Your task to perform on an android device: Search for the best rated 2021 Samsung Galaxy S21 Ultra on AliExpress Image 0: 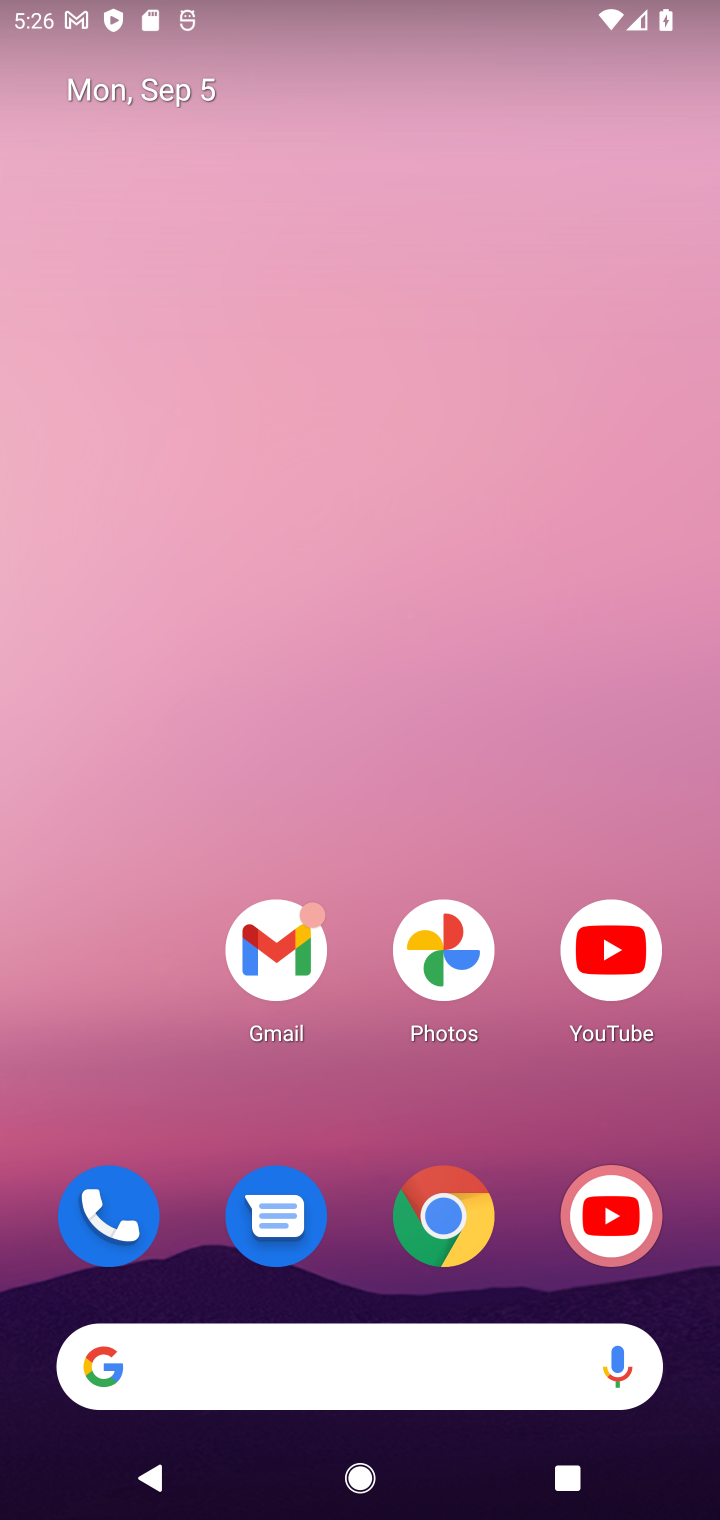
Step 0: click (432, 1245)
Your task to perform on an android device: Search for the best rated 2021 Samsung Galaxy S21 Ultra on AliExpress Image 1: 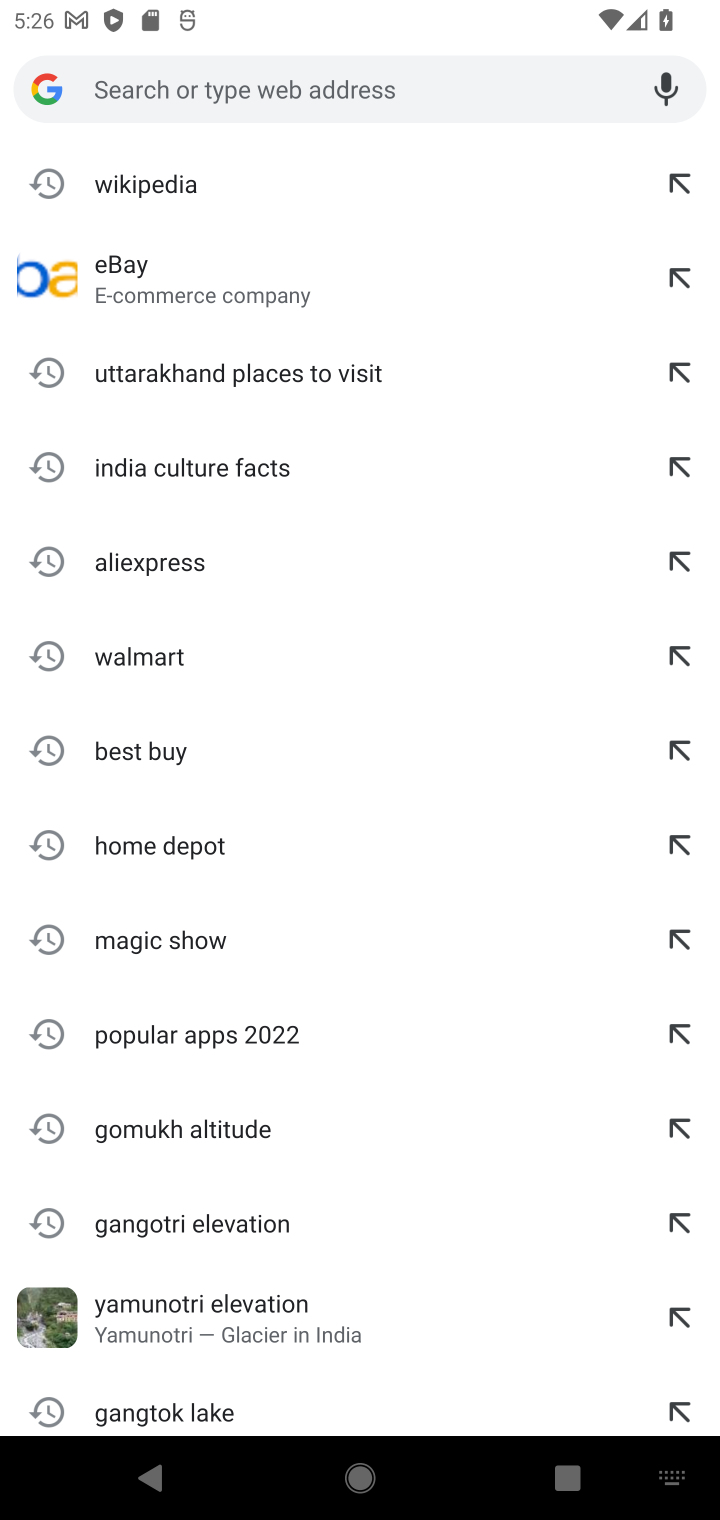
Step 1: click (164, 573)
Your task to perform on an android device: Search for the best rated 2021 Samsung Galaxy S21 Ultra on AliExpress Image 2: 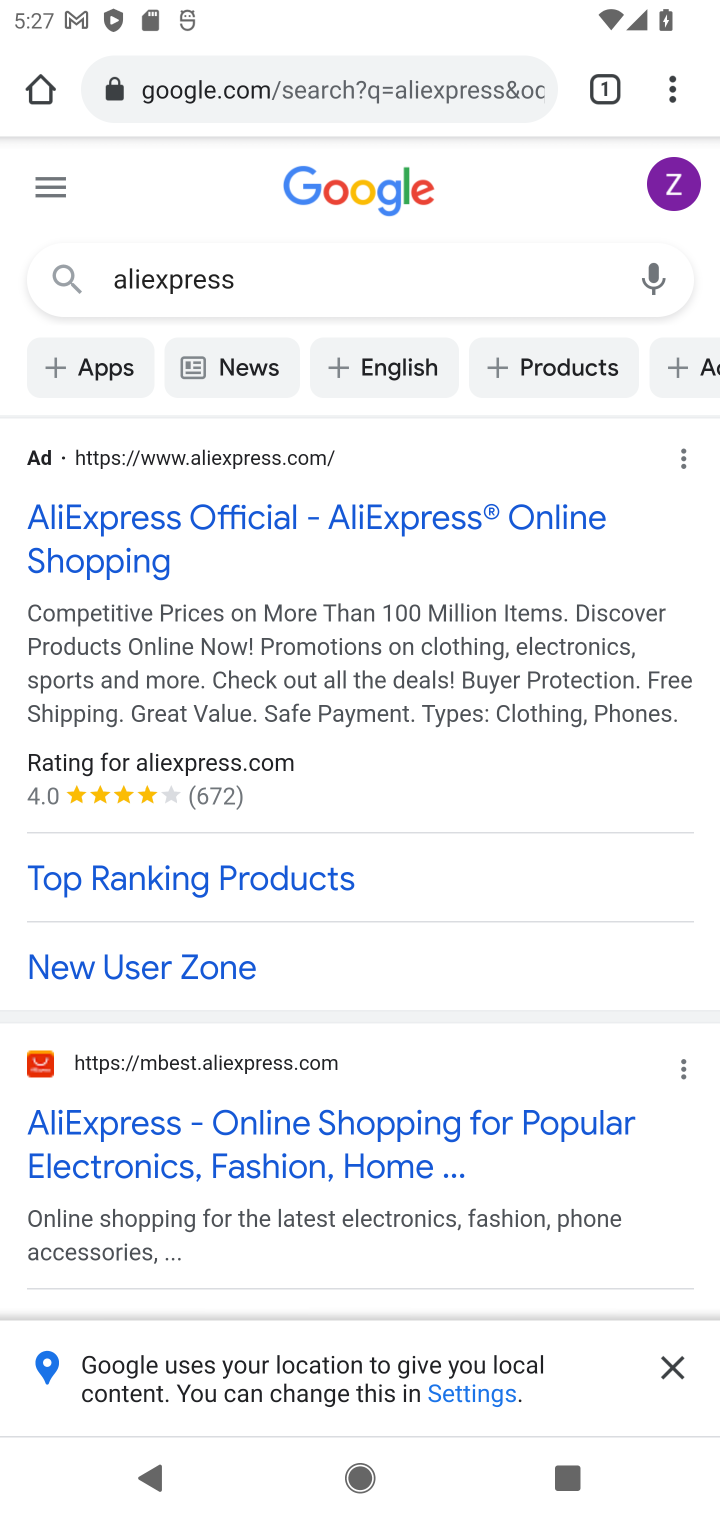
Step 2: click (218, 1135)
Your task to perform on an android device: Search for the best rated 2021 Samsung Galaxy S21 Ultra on AliExpress Image 3: 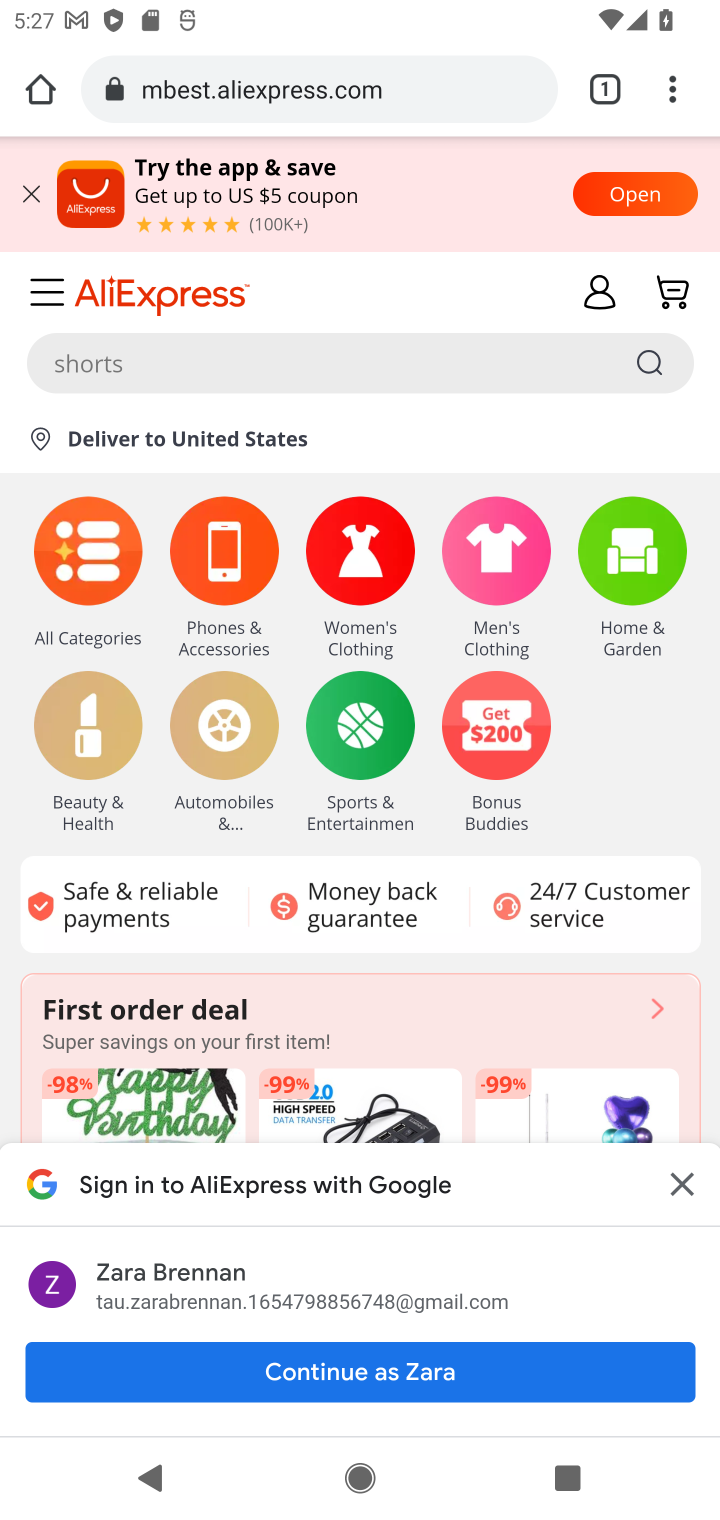
Step 3: click (683, 1194)
Your task to perform on an android device: Search for the best rated 2021 Samsung Galaxy S21 Ultra on AliExpress Image 4: 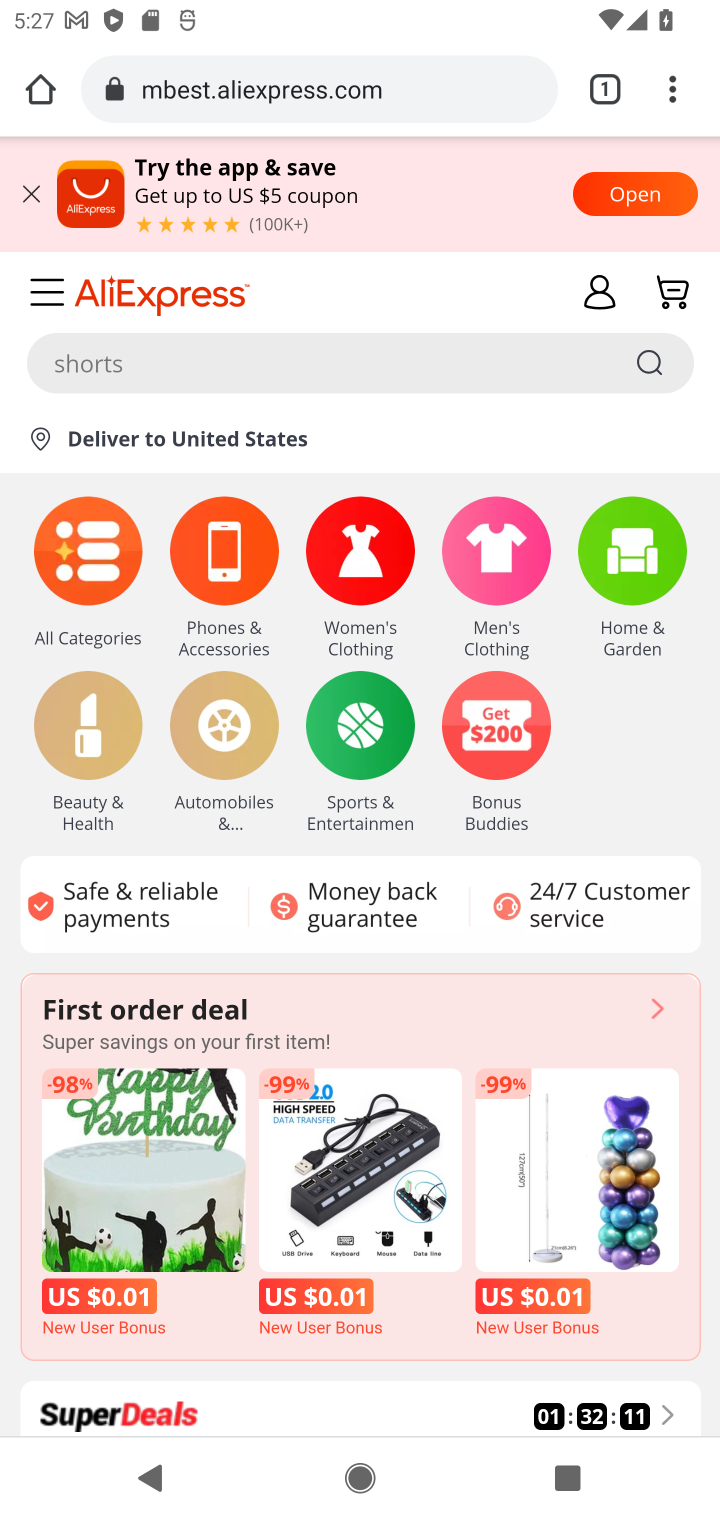
Step 4: click (282, 362)
Your task to perform on an android device: Search for the best rated 2021 Samsung Galaxy S21 Ultra on AliExpress Image 5: 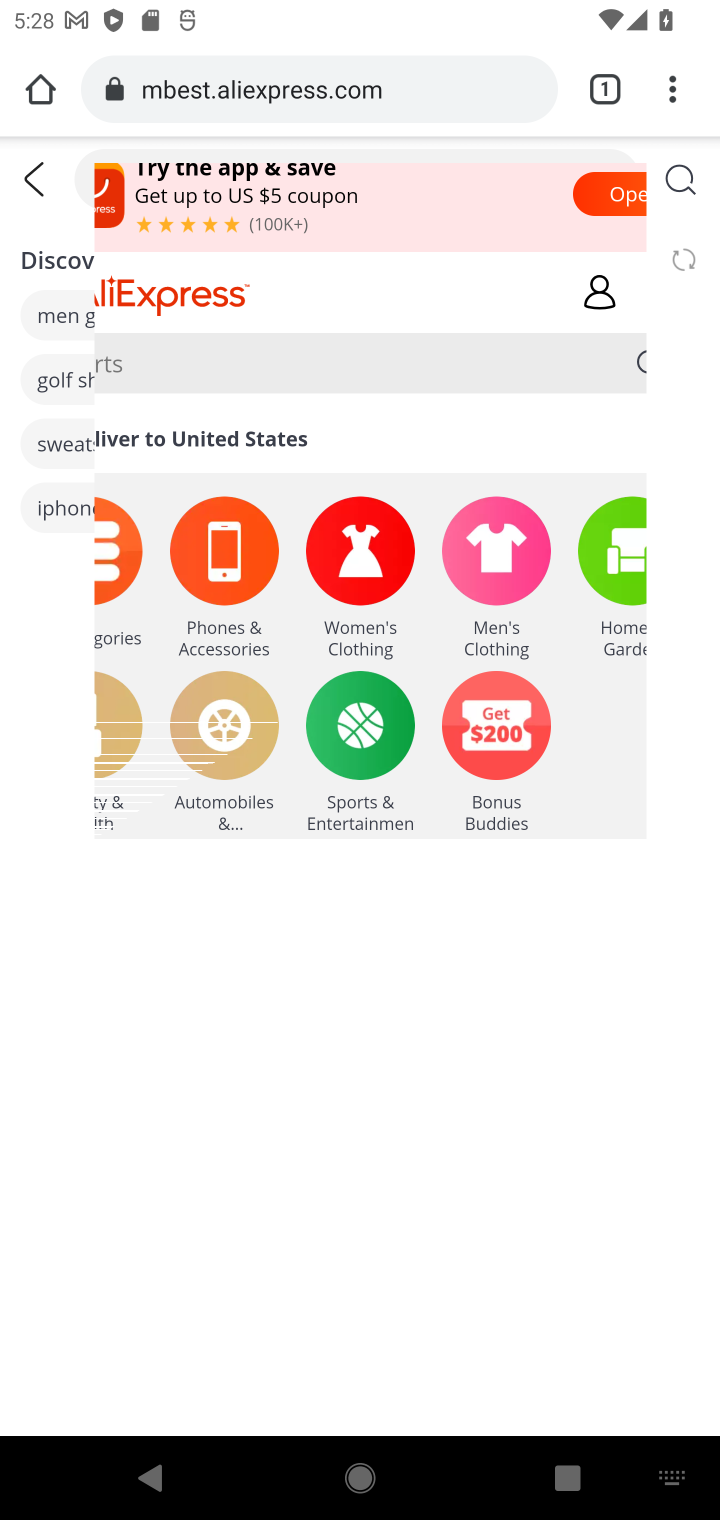
Step 5: type "samsung galaxy"
Your task to perform on an android device: Search for the best rated 2021 Samsung Galaxy S21 Ultra on AliExpress Image 6: 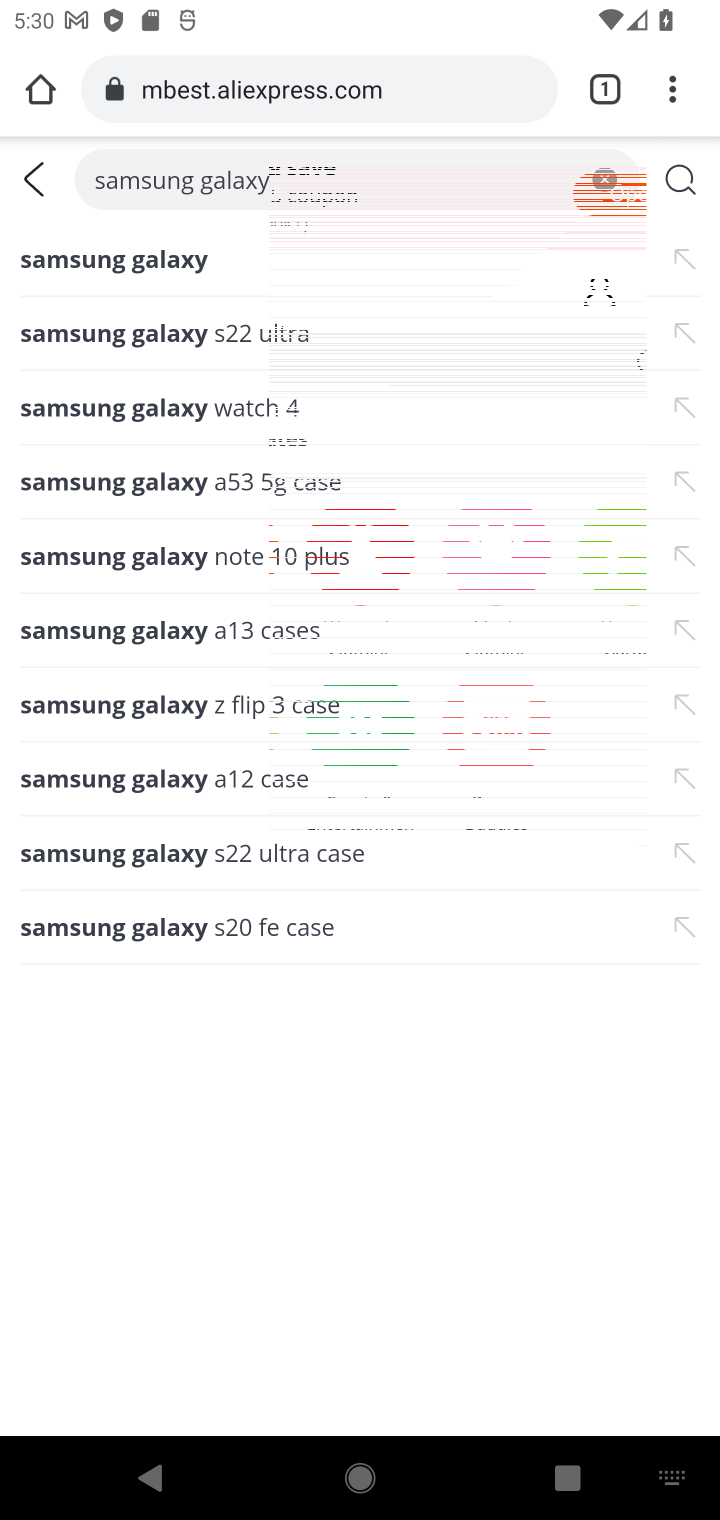
Step 6: type "s 21"
Your task to perform on an android device: Search for the best rated 2021 Samsung Galaxy S21 Ultra on AliExpress Image 7: 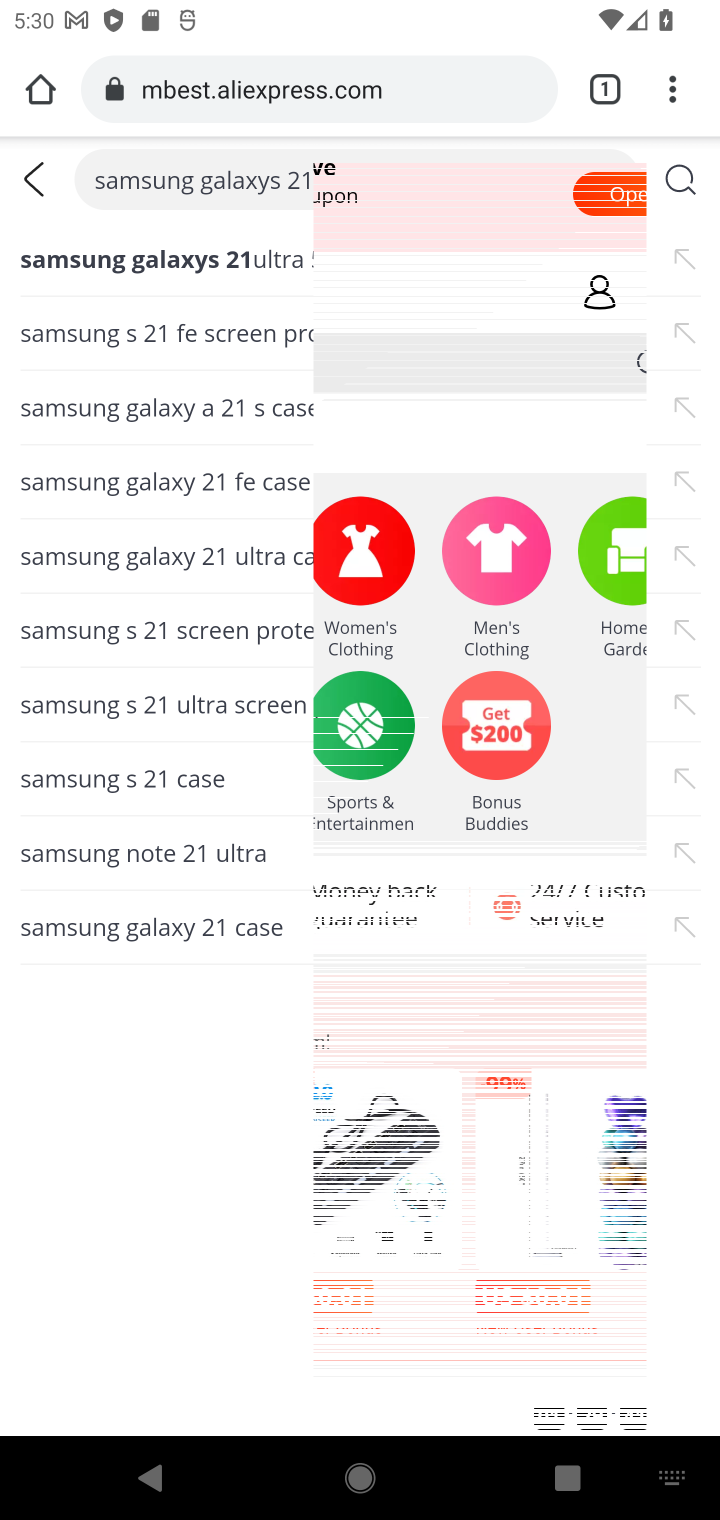
Step 7: task complete